Your task to perform on an android device: Open Amazon Image 0: 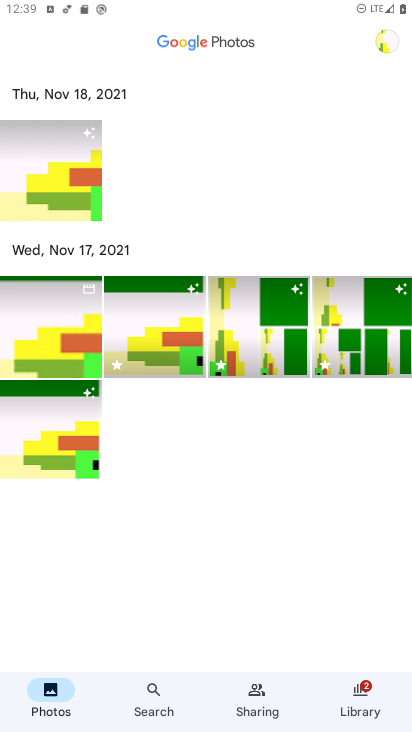
Step 0: press home button
Your task to perform on an android device: Open Amazon Image 1: 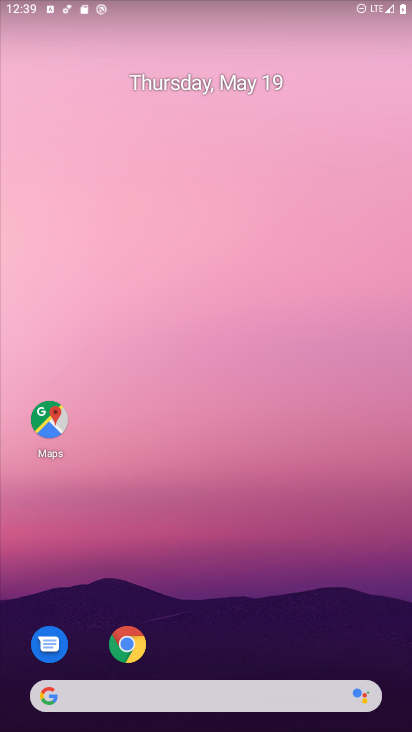
Step 1: drag from (280, 592) to (246, 100)
Your task to perform on an android device: Open Amazon Image 2: 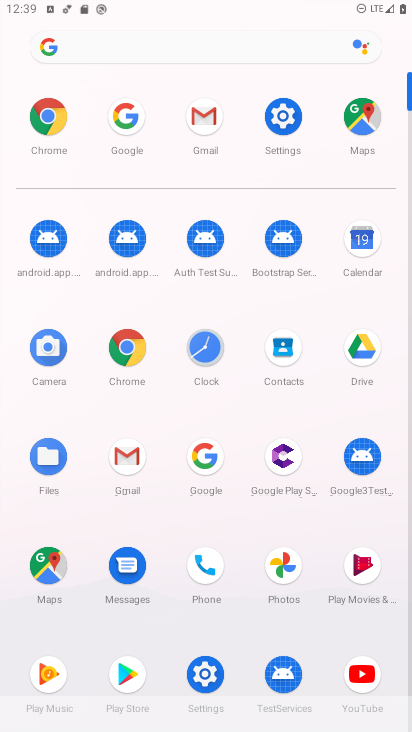
Step 2: click (133, 351)
Your task to perform on an android device: Open Amazon Image 3: 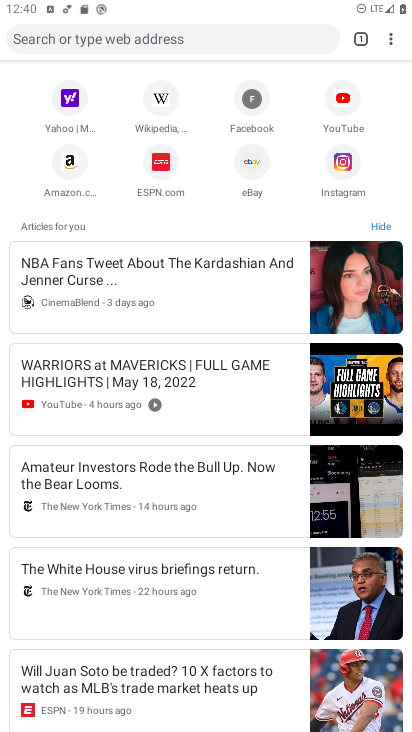
Step 3: click (72, 172)
Your task to perform on an android device: Open Amazon Image 4: 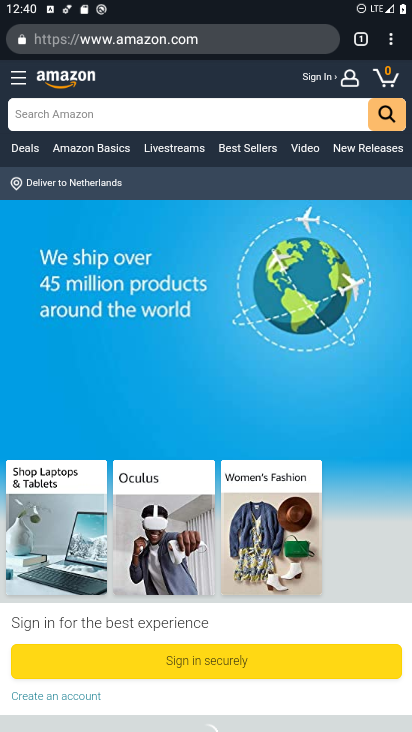
Step 4: task complete